Your task to perform on an android device: Go to location settings Image 0: 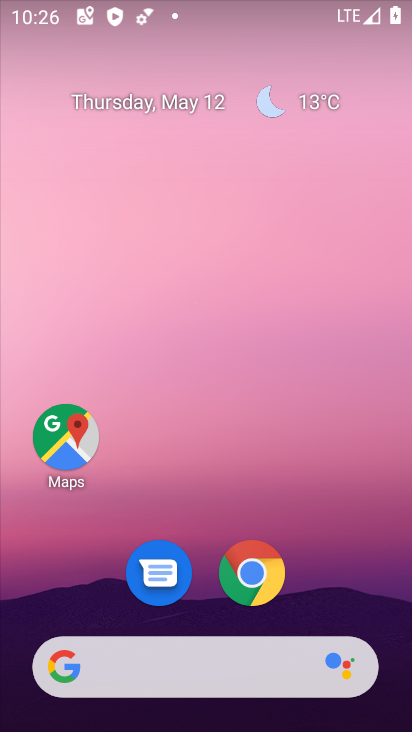
Step 0: drag from (210, 611) to (164, 13)
Your task to perform on an android device: Go to location settings Image 1: 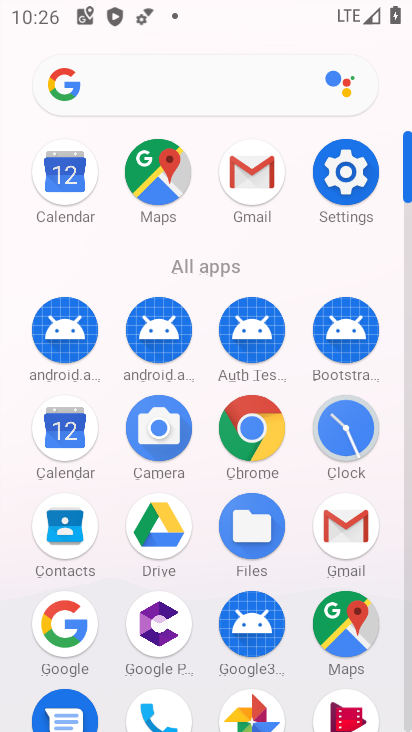
Step 1: click (343, 179)
Your task to perform on an android device: Go to location settings Image 2: 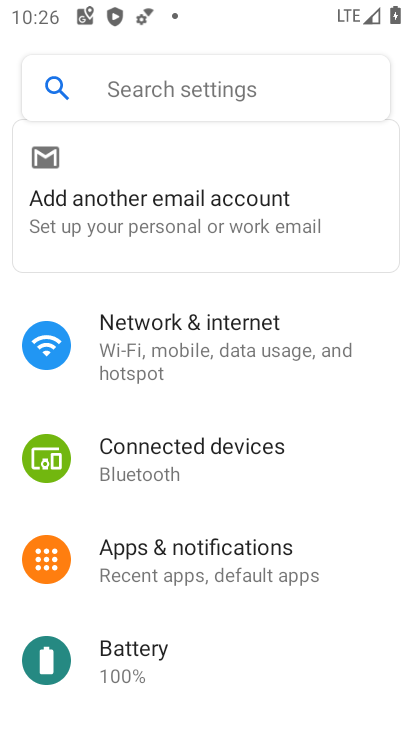
Step 2: drag from (242, 586) to (215, 216)
Your task to perform on an android device: Go to location settings Image 3: 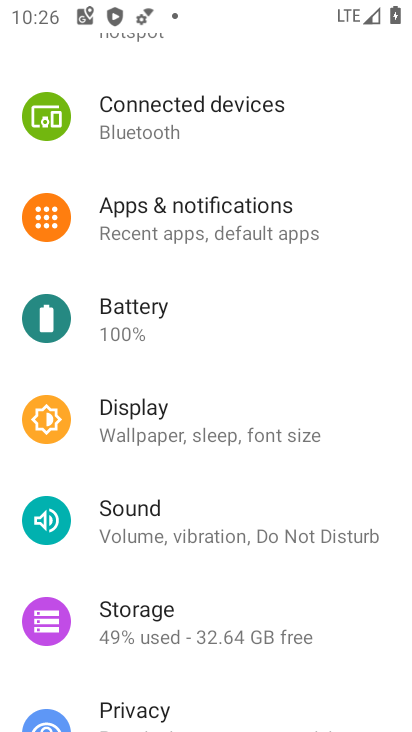
Step 3: drag from (208, 662) to (152, 184)
Your task to perform on an android device: Go to location settings Image 4: 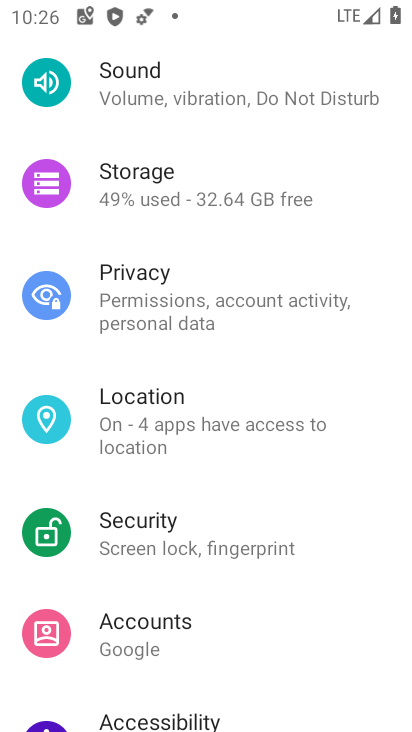
Step 4: drag from (182, 518) to (199, 624)
Your task to perform on an android device: Go to location settings Image 5: 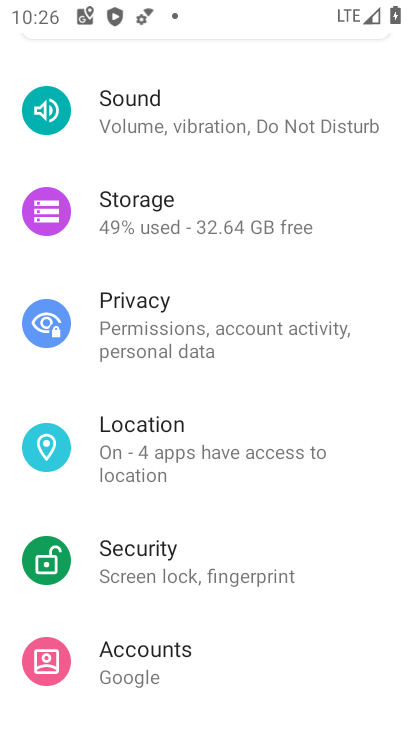
Step 5: click (168, 460)
Your task to perform on an android device: Go to location settings Image 6: 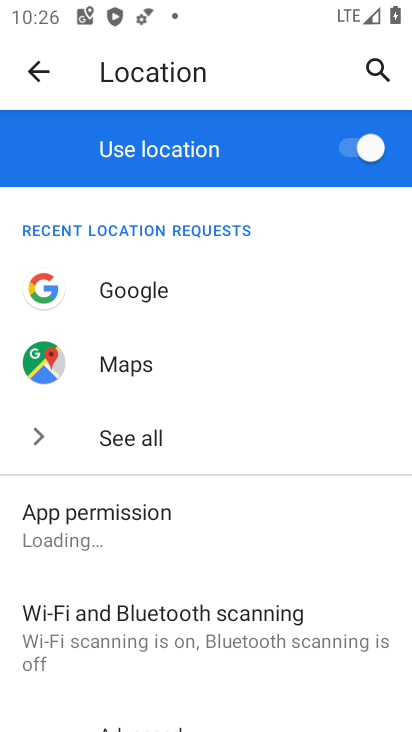
Step 6: task complete